Your task to perform on an android device: Open battery settings Image 0: 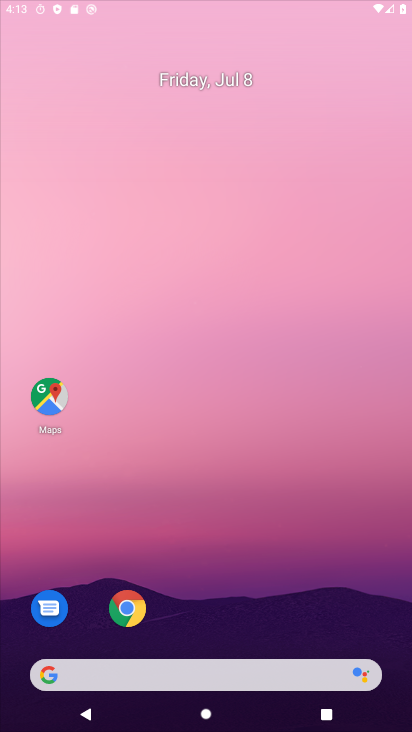
Step 0: press home button
Your task to perform on an android device: Open battery settings Image 1: 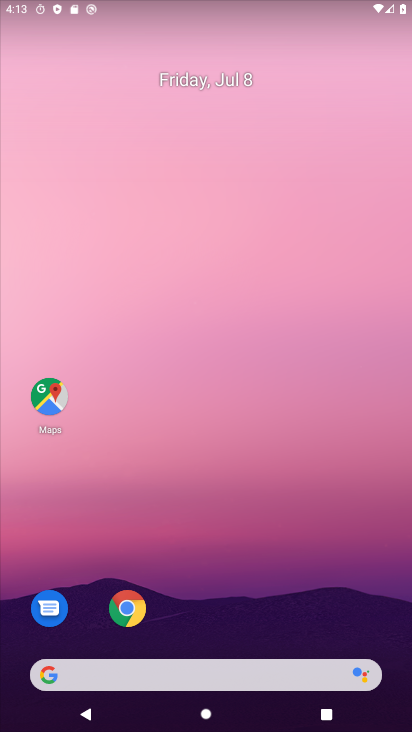
Step 1: drag from (247, 338) to (244, 178)
Your task to perform on an android device: Open battery settings Image 2: 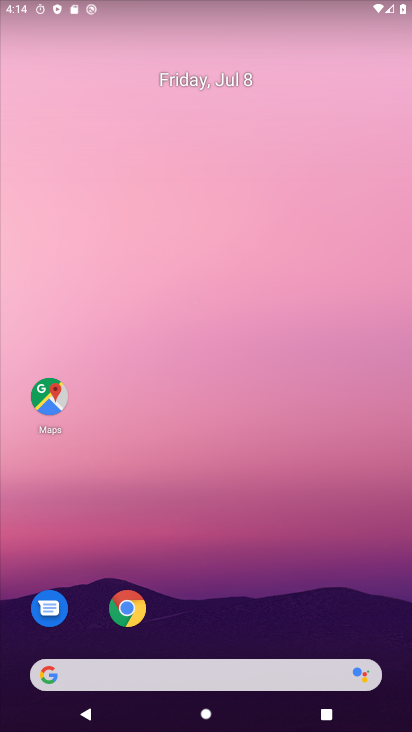
Step 2: drag from (236, 537) to (241, 12)
Your task to perform on an android device: Open battery settings Image 3: 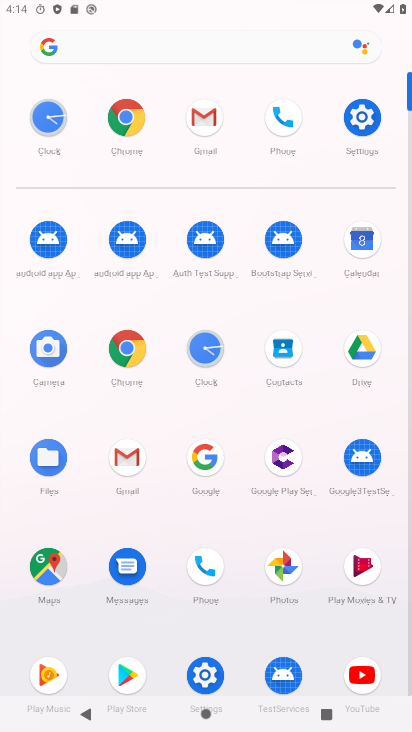
Step 3: click (351, 118)
Your task to perform on an android device: Open battery settings Image 4: 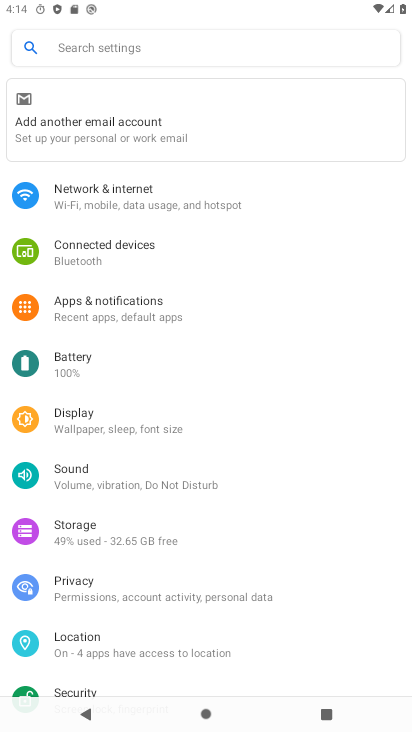
Step 4: click (82, 358)
Your task to perform on an android device: Open battery settings Image 5: 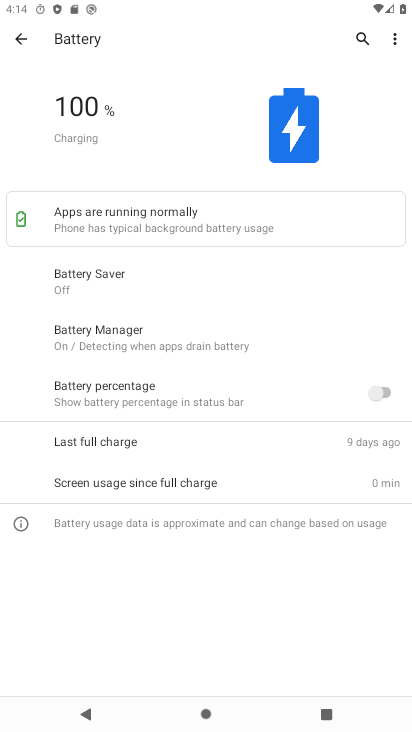
Step 5: task complete